Your task to perform on an android device: toggle data saver in the chrome app Image 0: 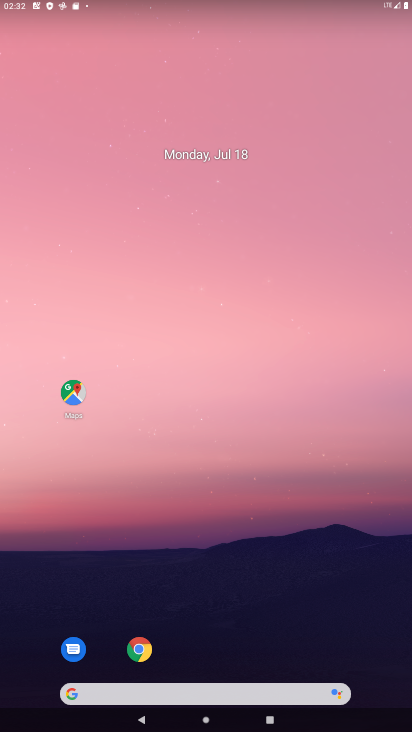
Step 0: click (146, 647)
Your task to perform on an android device: toggle data saver in the chrome app Image 1: 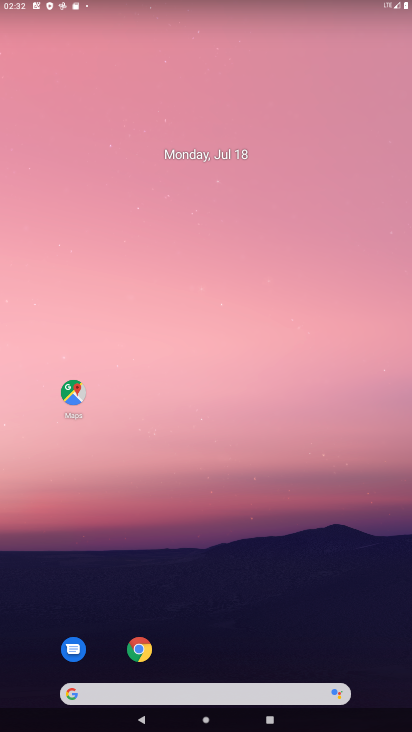
Step 1: click (146, 647)
Your task to perform on an android device: toggle data saver in the chrome app Image 2: 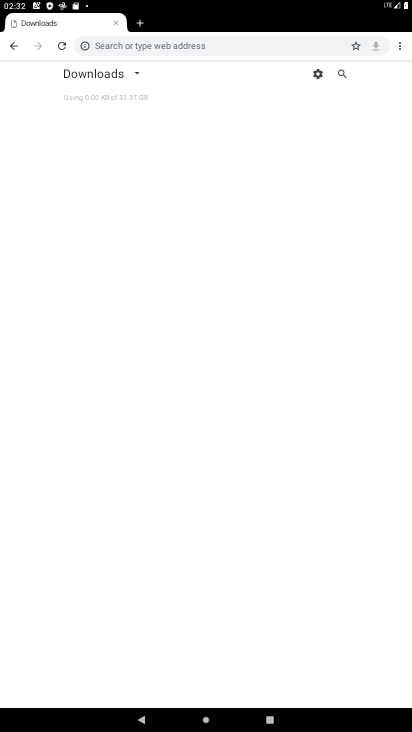
Step 2: click (395, 44)
Your task to perform on an android device: toggle data saver in the chrome app Image 3: 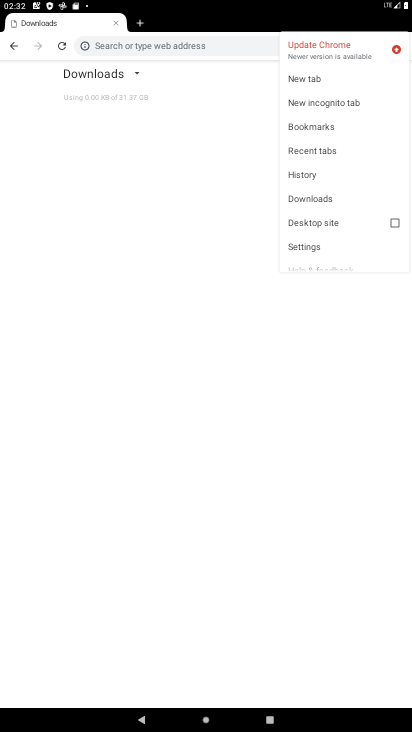
Step 3: click (310, 252)
Your task to perform on an android device: toggle data saver in the chrome app Image 4: 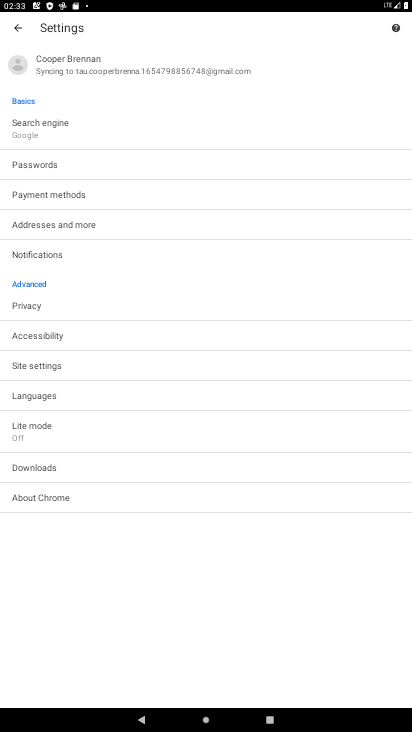
Step 4: click (82, 433)
Your task to perform on an android device: toggle data saver in the chrome app Image 5: 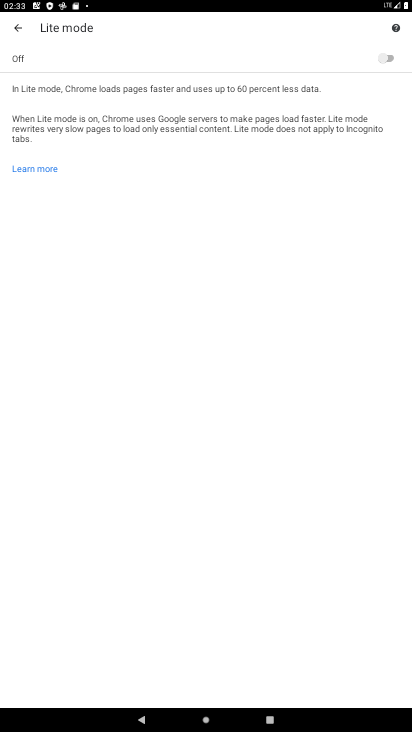
Step 5: click (391, 58)
Your task to perform on an android device: toggle data saver in the chrome app Image 6: 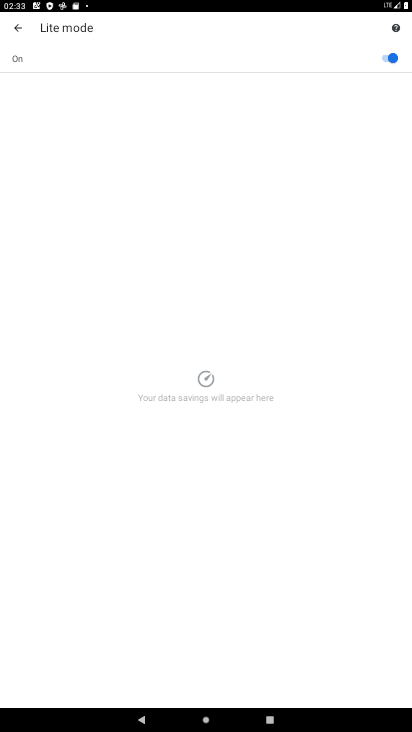
Step 6: task complete